Your task to perform on an android device: Open the calendar and show me this week's events Image 0: 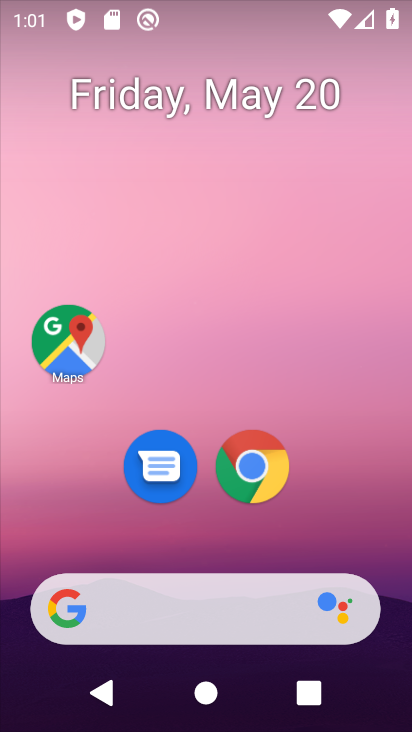
Step 0: drag from (191, 555) to (233, 214)
Your task to perform on an android device: Open the calendar and show me this week's events Image 1: 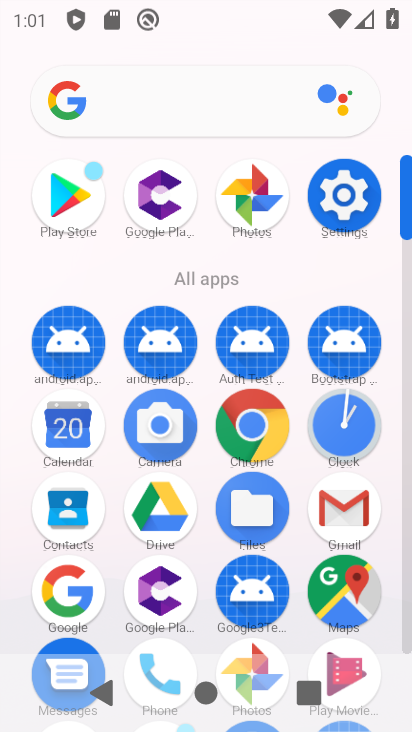
Step 1: click (81, 437)
Your task to perform on an android device: Open the calendar and show me this week's events Image 2: 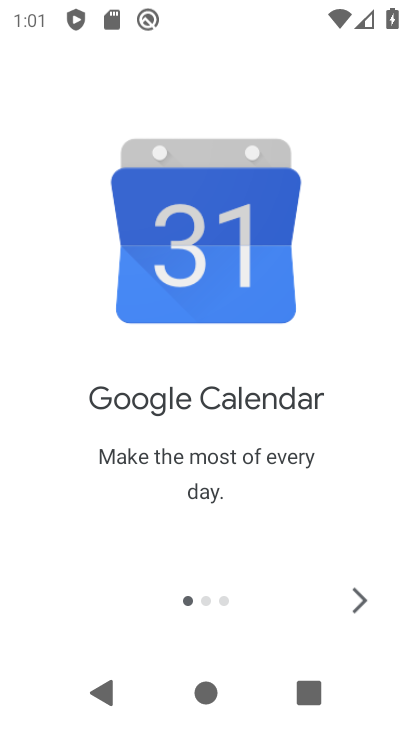
Step 2: click (351, 602)
Your task to perform on an android device: Open the calendar and show me this week's events Image 3: 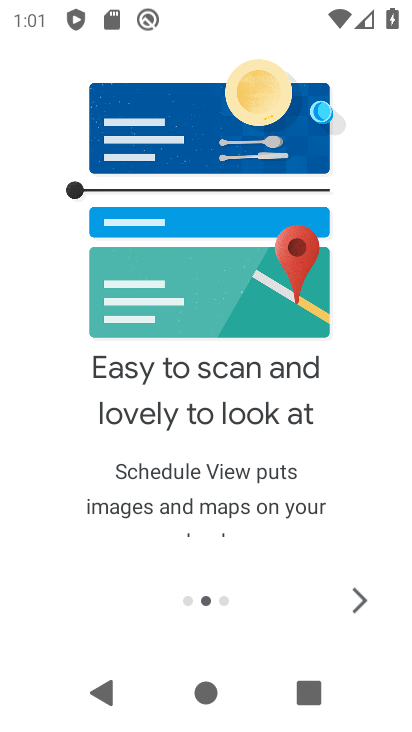
Step 3: click (347, 605)
Your task to perform on an android device: Open the calendar and show me this week's events Image 4: 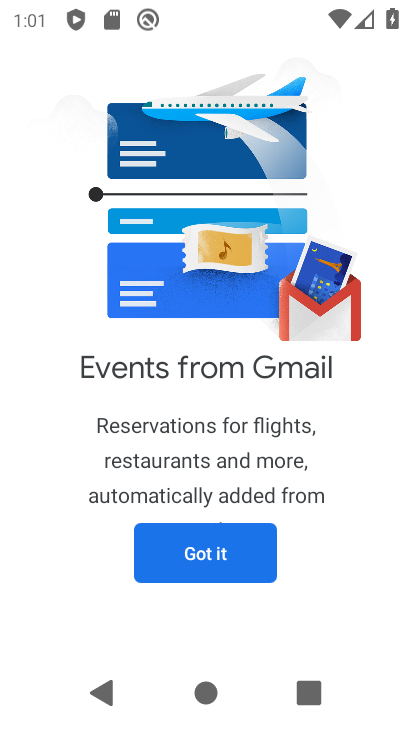
Step 4: click (229, 547)
Your task to perform on an android device: Open the calendar and show me this week's events Image 5: 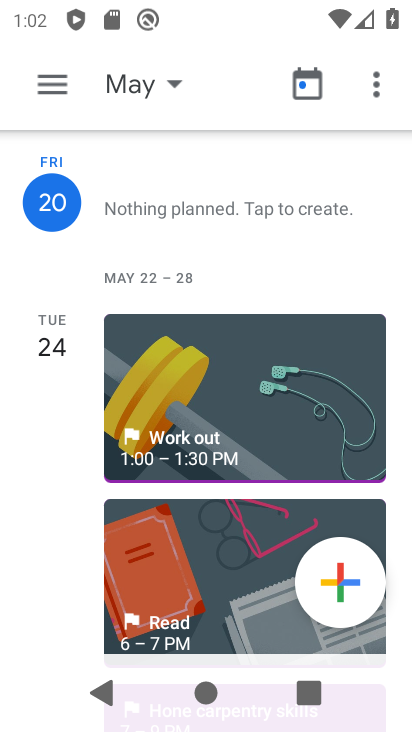
Step 5: click (165, 84)
Your task to perform on an android device: Open the calendar and show me this week's events Image 6: 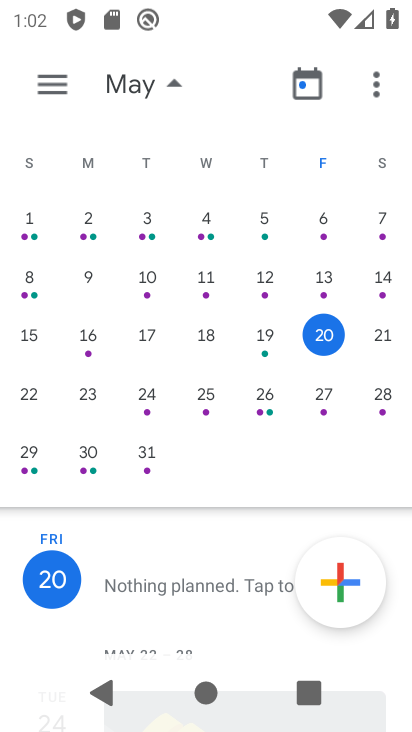
Step 6: task complete